Your task to perform on an android device: toggle wifi Image 0: 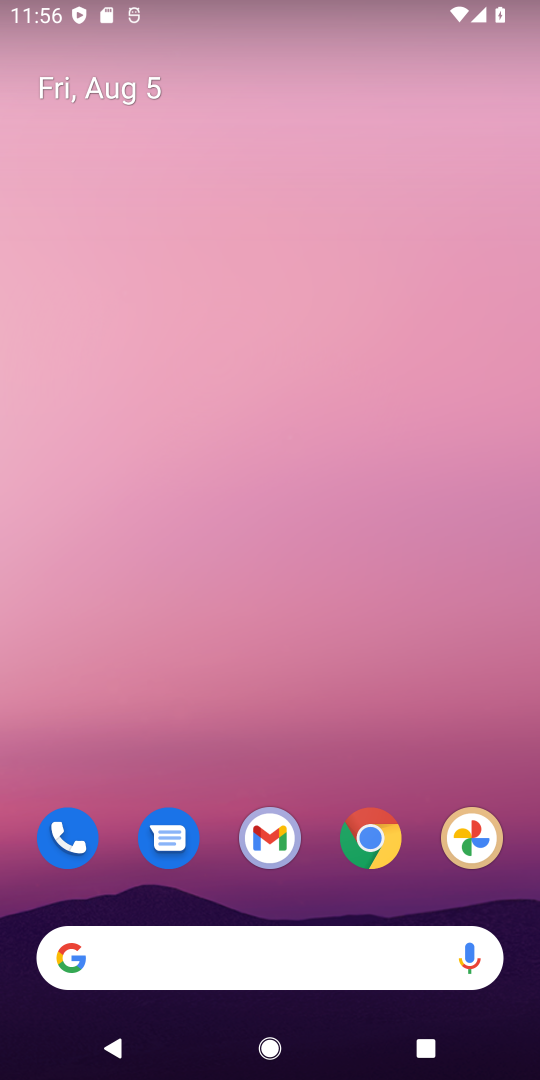
Step 0: press home button
Your task to perform on an android device: toggle wifi Image 1: 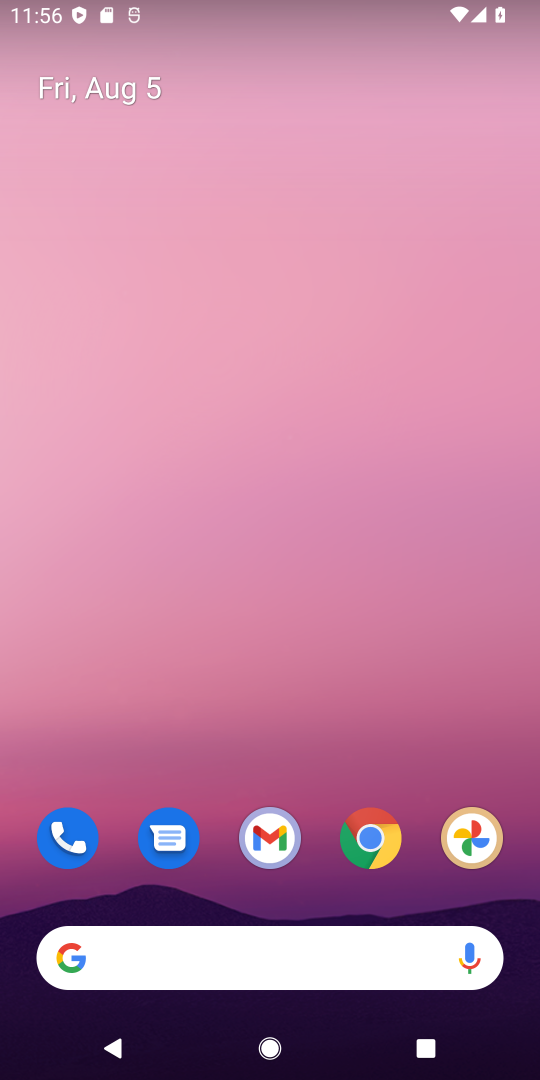
Step 1: drag from (332, 876) to (497, 31)
Your task to perform on an android device: toggle wifi Image 2: 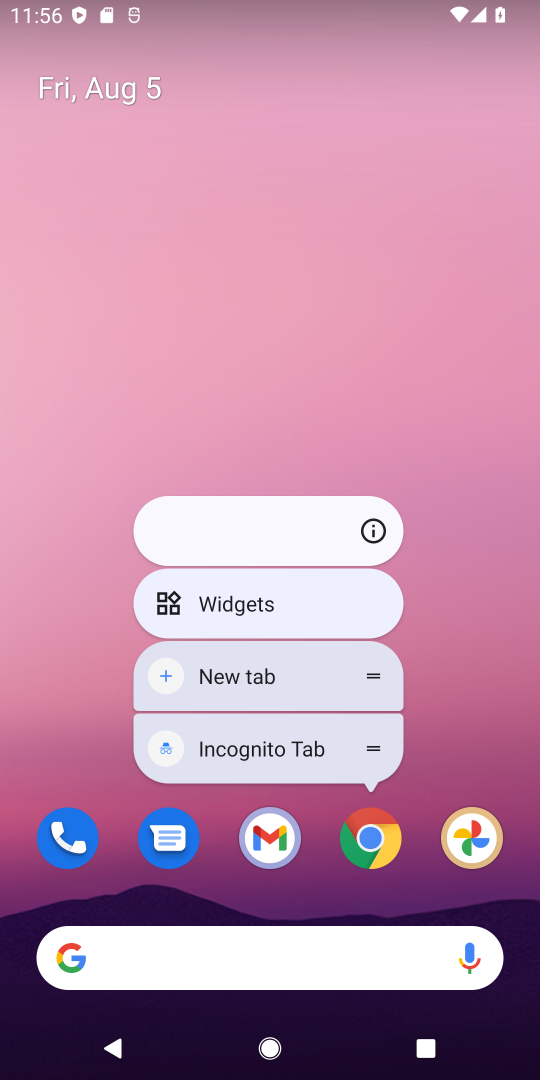
Step 2: click (438, 889)
Your task to perform on an android device: toggle wifi Image 3: 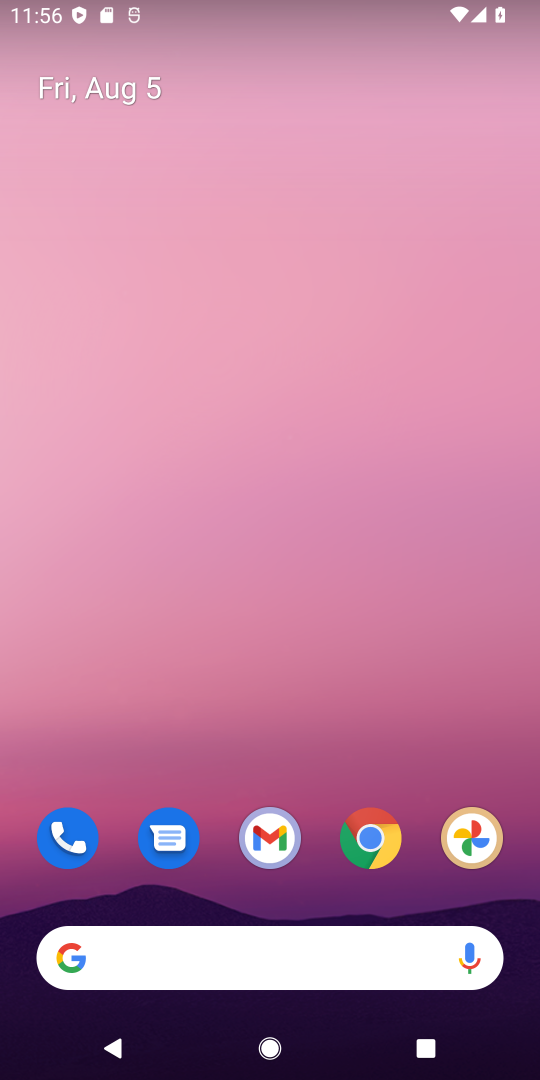
Step 3: drag from (438, 888) to (429, 151)
Your task to perform on an android device: toggle wifi Image 4: 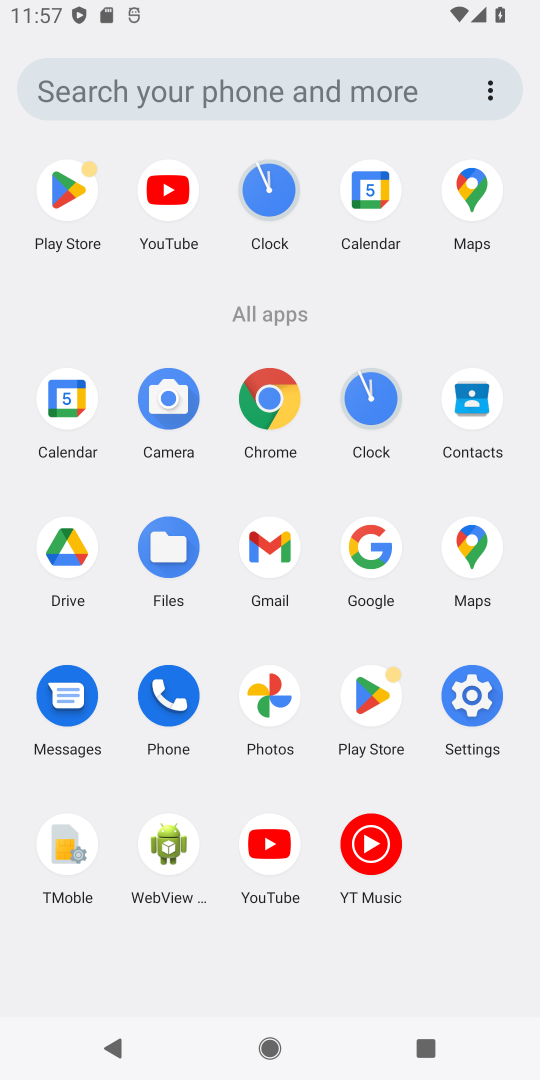
Step 4: click (479, 687)
Your task to perform on an android device: toggle wifi Image 5: 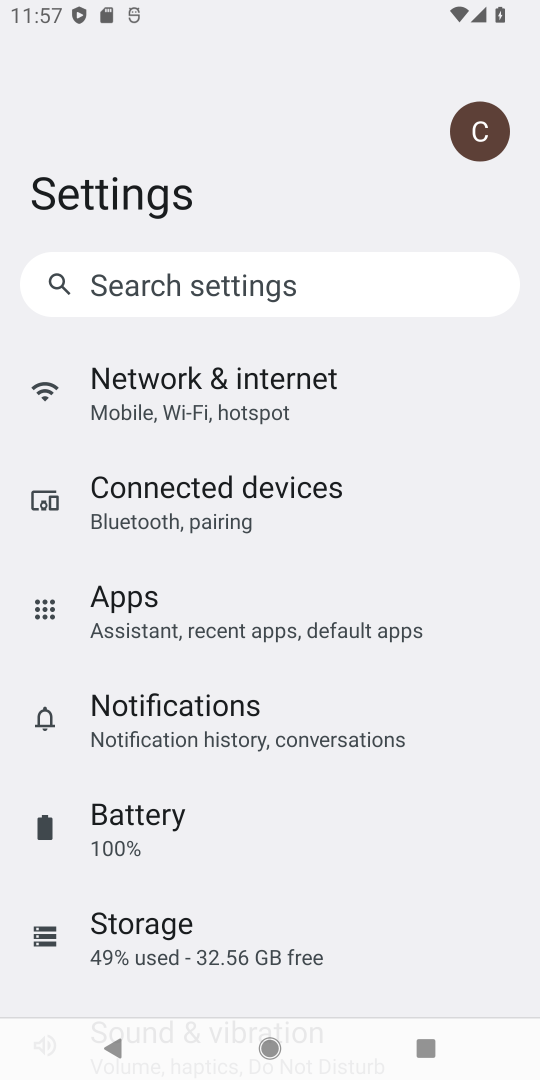
Step 5: click (257, 388)
Your task to perform on an android device: toggle wifi Image 6: 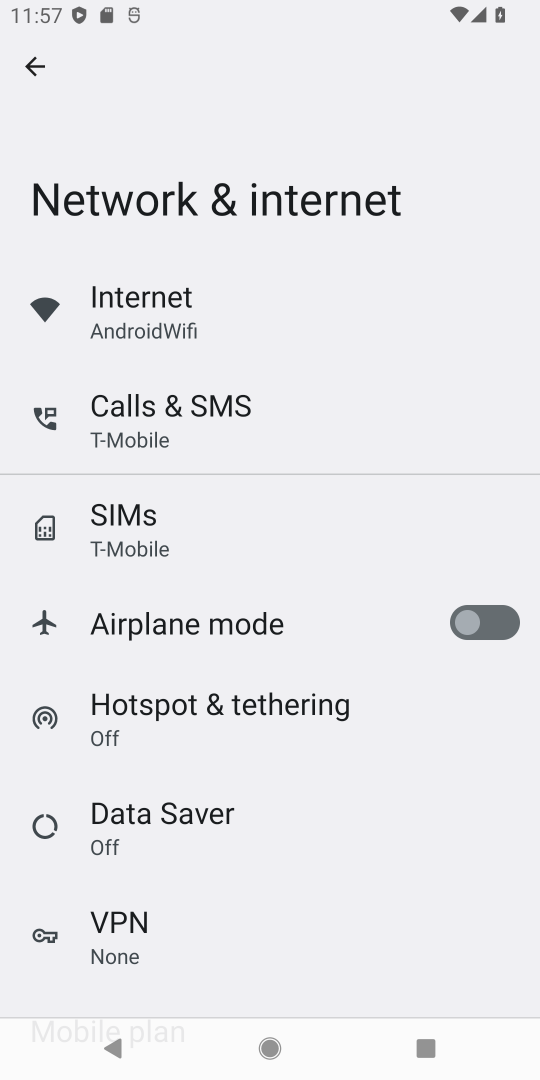
Step 6: click (166, 316)
Your task to perform on an android device: toggle wifi Image 7: 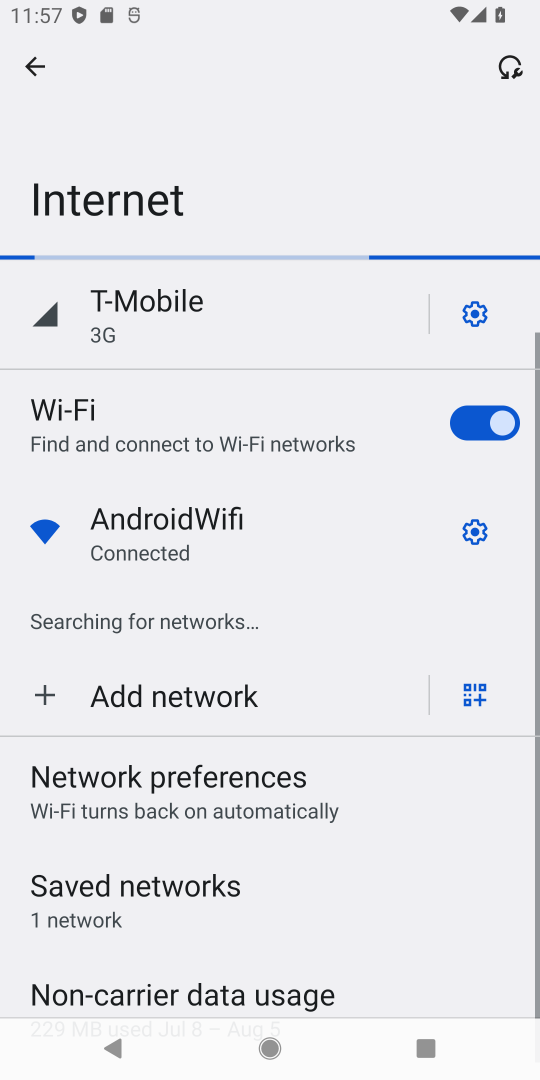
Step 7: click (492, 425)
Your task to perform on an android device: toggle wifi Image 8: 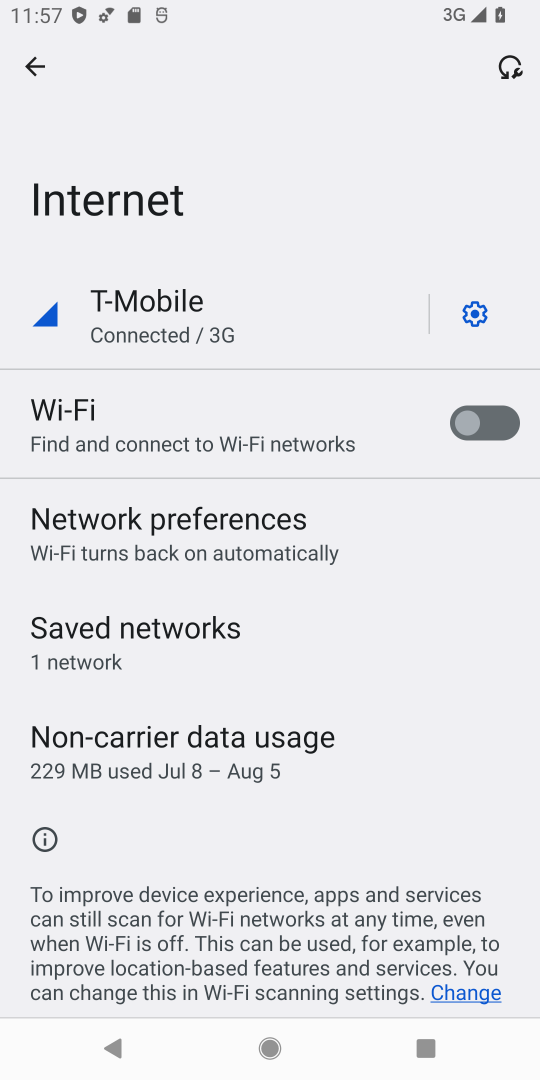
Step 8: task complete